Your task to perform on an android device: turn off location history Image 0: 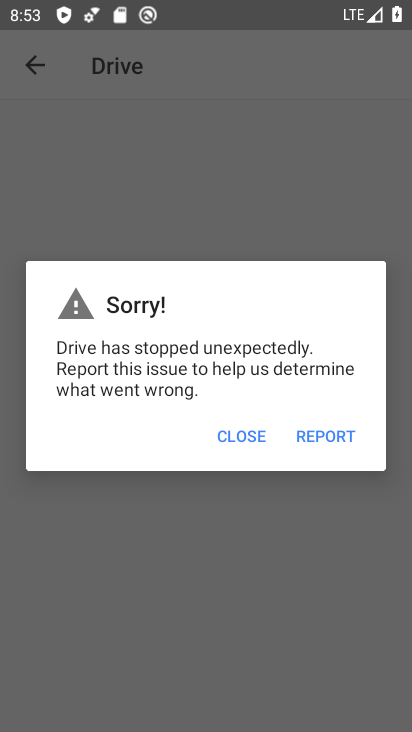
Step 0: press home button
Your task to perform on an android device: turn off location history Image 1: 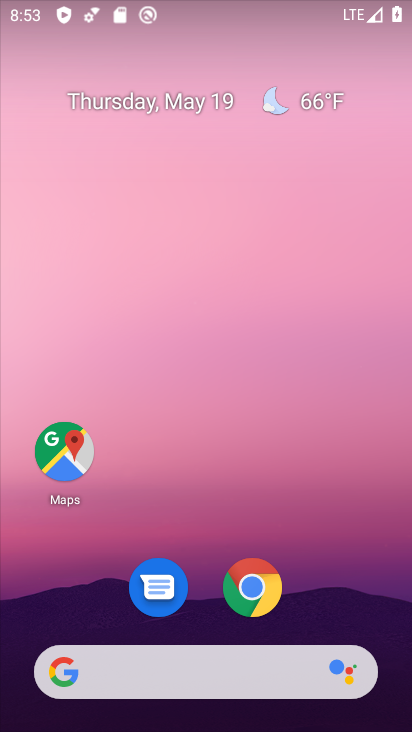
Step 1: drag from (200, 712) to (254, 92)
Your task to perform on an android device: turn off location history Image 2: 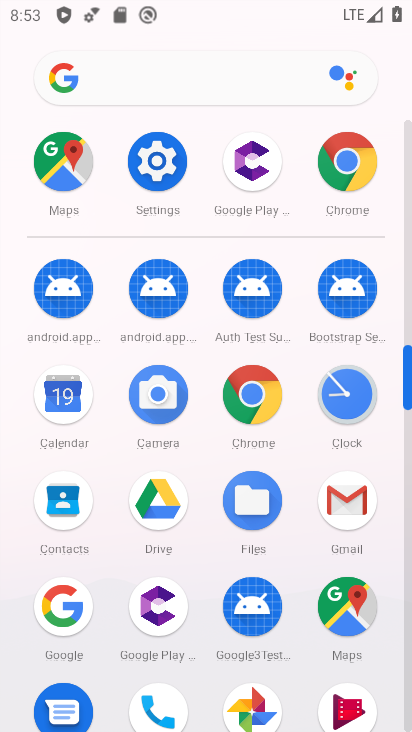
Step 2: click (139, 163)
Your task to perform on an android device: turn off location history Image 3: 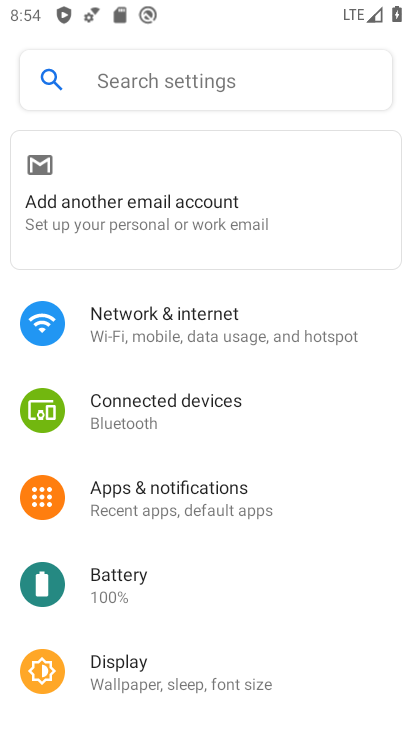
Step 3: click (171, 93)
Your task to perform on an android device: turn off location history Image 4: 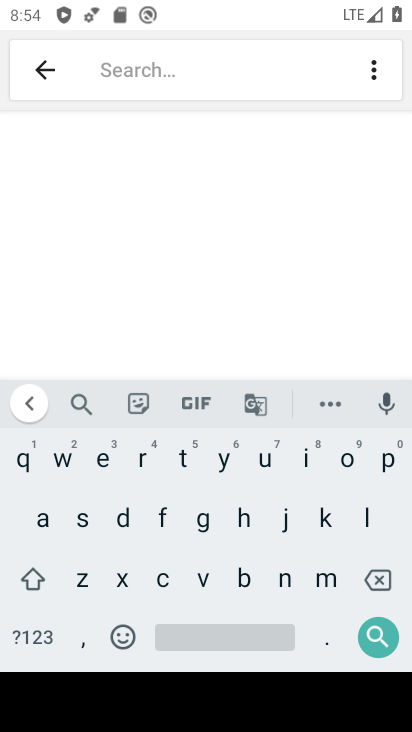
Step 4: click (363, 510)
Your task to perform on an android device: turn off location history Image 5: 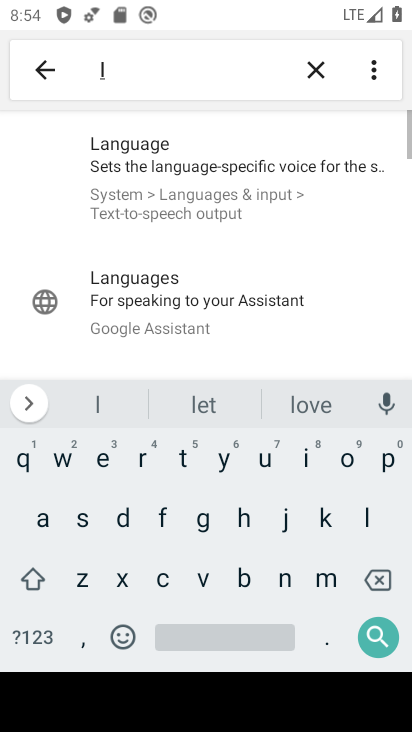
Step 5: click (343, 469)
Your task to perform on an android device: turn off location history Image 6: 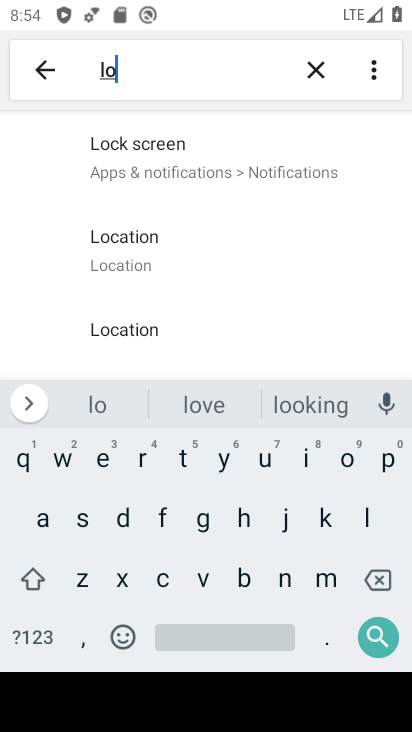
Step 6: click (162, 275)
Your task to perform on an android device: turn off location history Image 7: 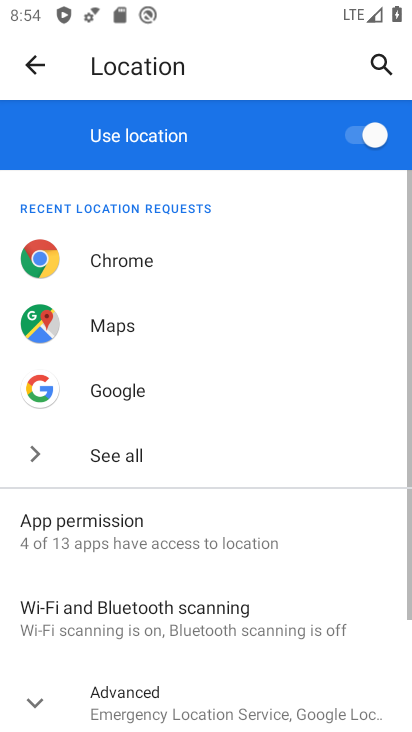
Step 7: drag from (165, 613) to (181, 312)
Your task to perform on an android device: turn off location history Image 8: 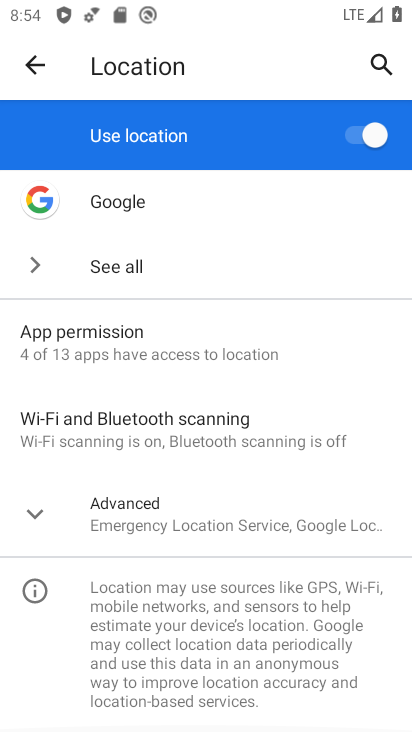
Step 8: click (101, 506)
Your task to perform on an android device: turn off location history Image 9: 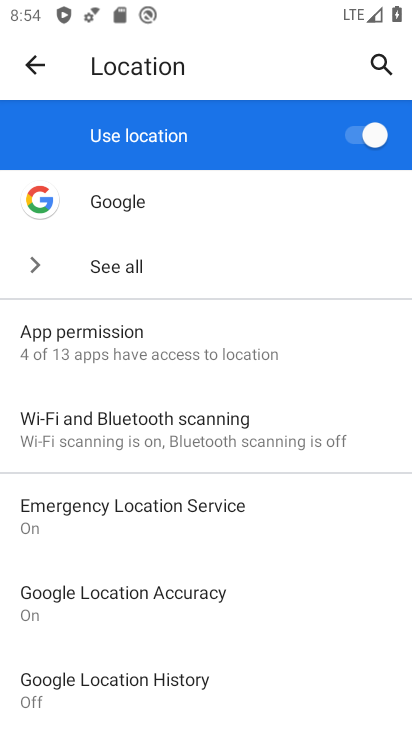
Step 9: click (164, 675)
Your task to perform on an android device: turn off location history Image 10: 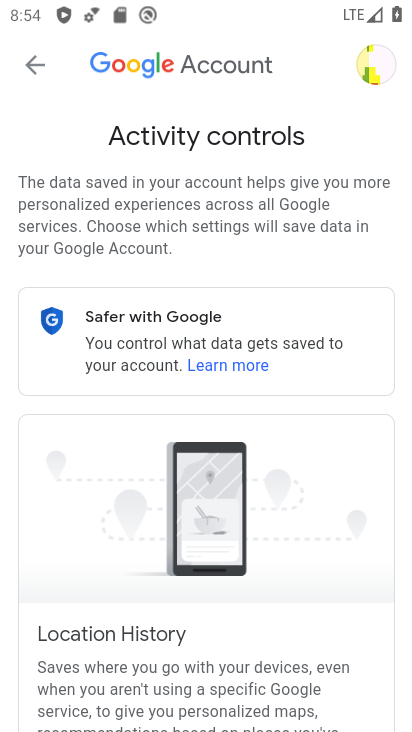
Step 10: drag from (128, 568) to (153, 277)
Your task to perform on an android device: turn off location history Image 11: 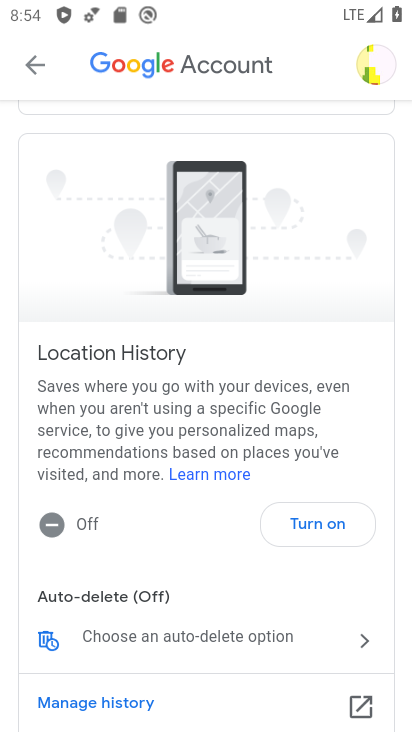
Step 11: click (62, 521)
Your task to perform on an android device: turn off location history Image 12: 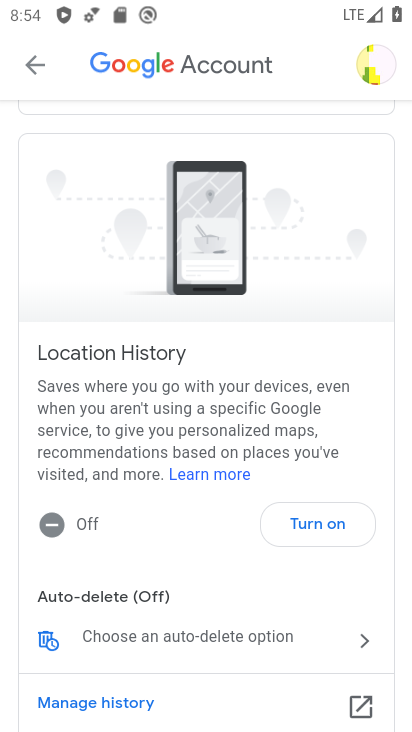
Step 12: task complete